Your task to perform on an android device: Clear the cart on target. Add "logitech g pro" to the cart on target, then select checkout. Image 0: 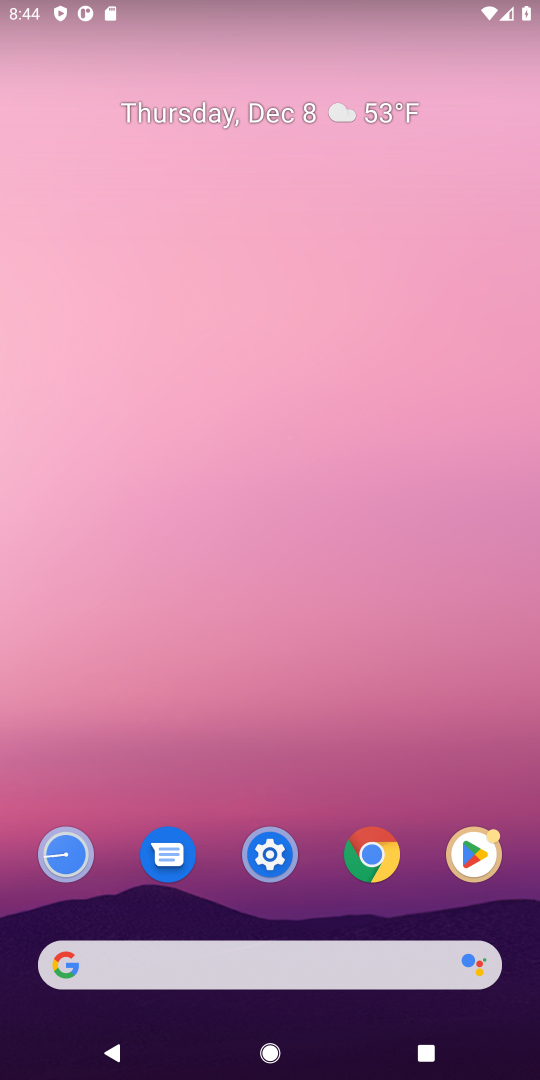
Step 0: press home button
Your task to perform on an android device: Clear the cart on target. Add "logitech g pro" to the cart on target, then select checkout. Image 1: 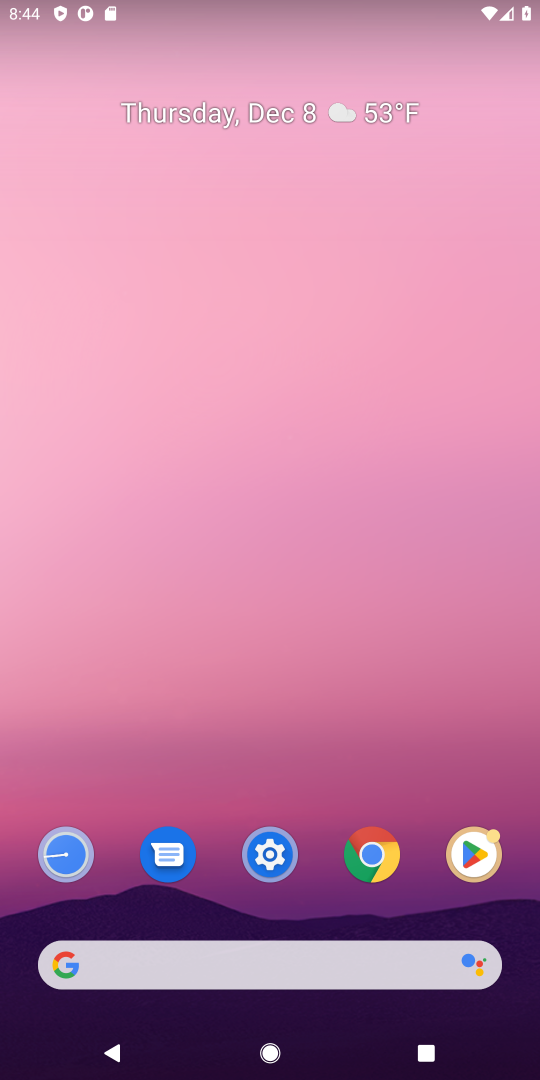
Step 1: click (89, 972)
Your task to perform on an android device: Clear the cart on target. Add "logitech g pro" to the cart on target, then select checkout. Image 2: 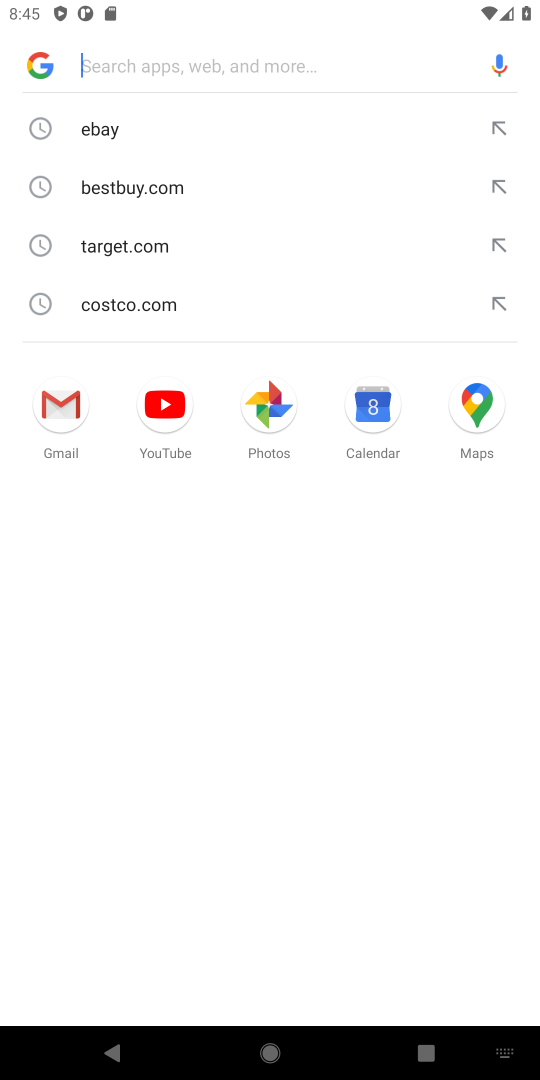
Step 2: type "target"
Your task to perform on an android device: Clear the cart on target. Add "logitech g pro" to the cart on target, then select checkout. Image 3: 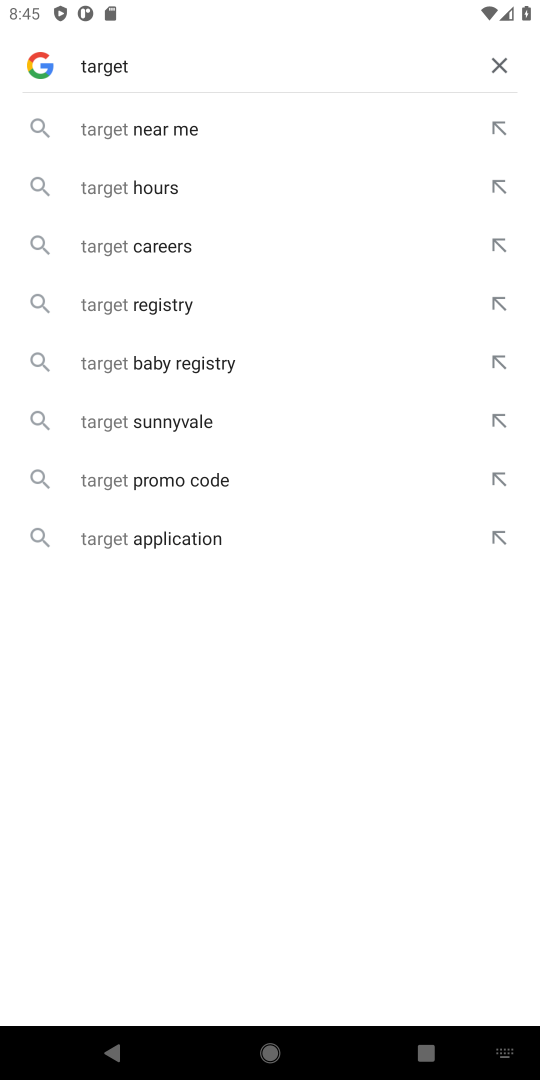
Step 3: press enter
Your task to perform on an android device: Clear the cart on target. Add "logitech g pro" to the cart on target, then select checkout. Image 4: 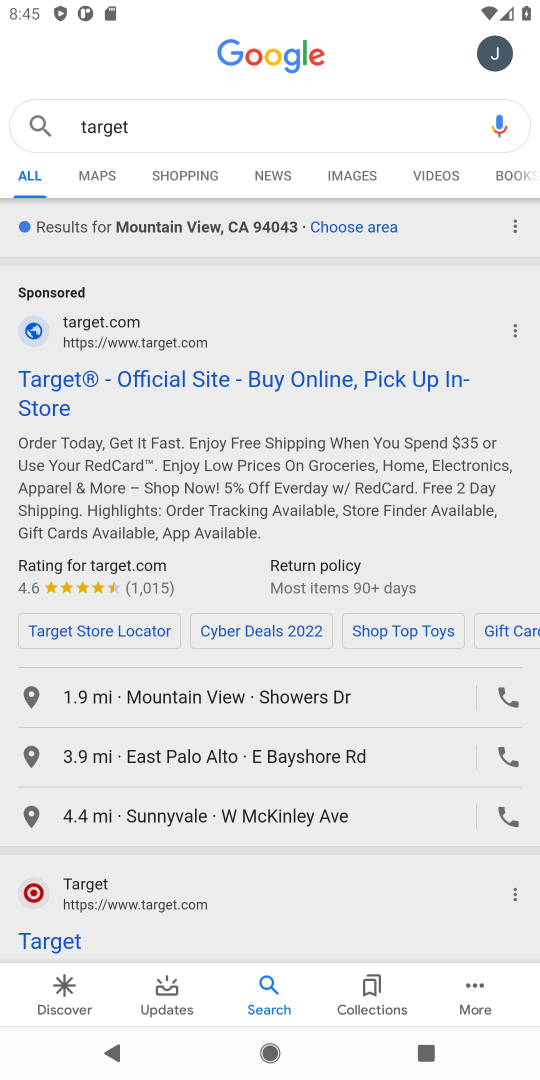
Step 4: click (163, 378)
Your task to perform on an android device: Clear the cart on target. Add "logitech g pro" to the cart on target, then select checkout. Image 5: 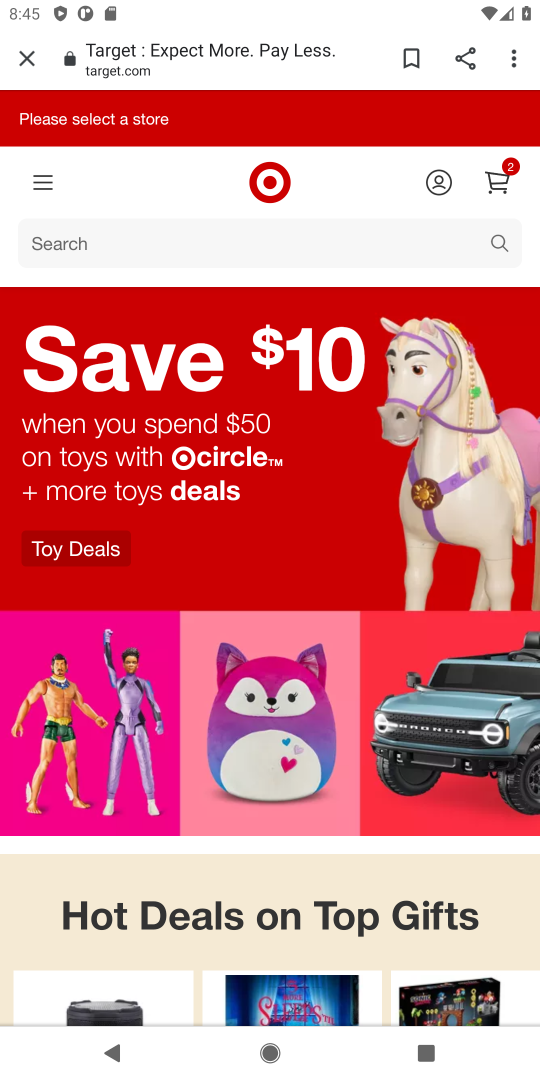
Step 5: click (497, 170)
Your task to perform on an android device: Clear the cart on target. Add "logitech g pro" to the cart on target, then select checkout. Image 6: 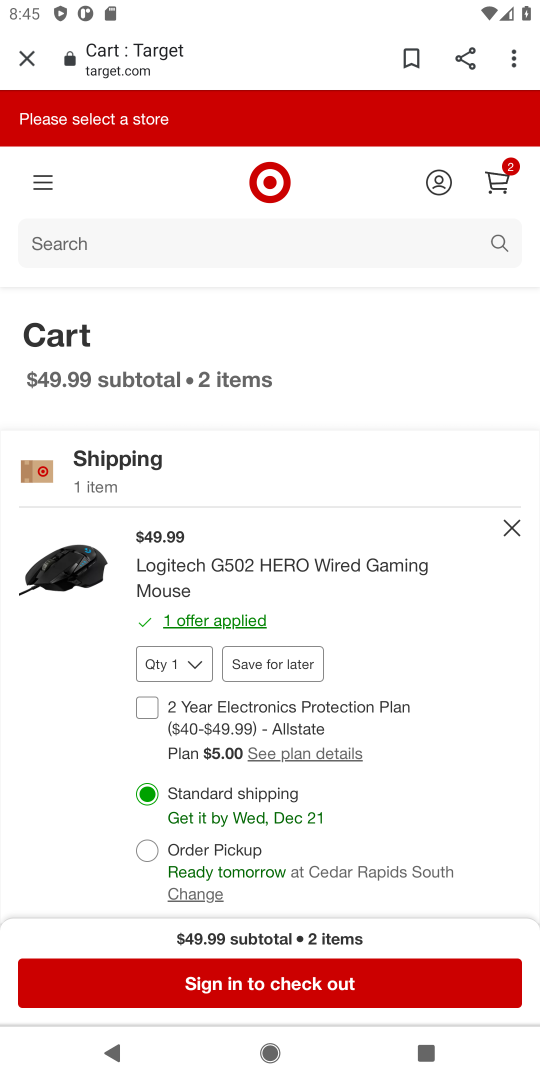
Step 6: click (506, 523)
Your task to perform on an android device: Clear the cart on target. Add "logitech g pro" to the cart on target, then select checkout. Image 7: 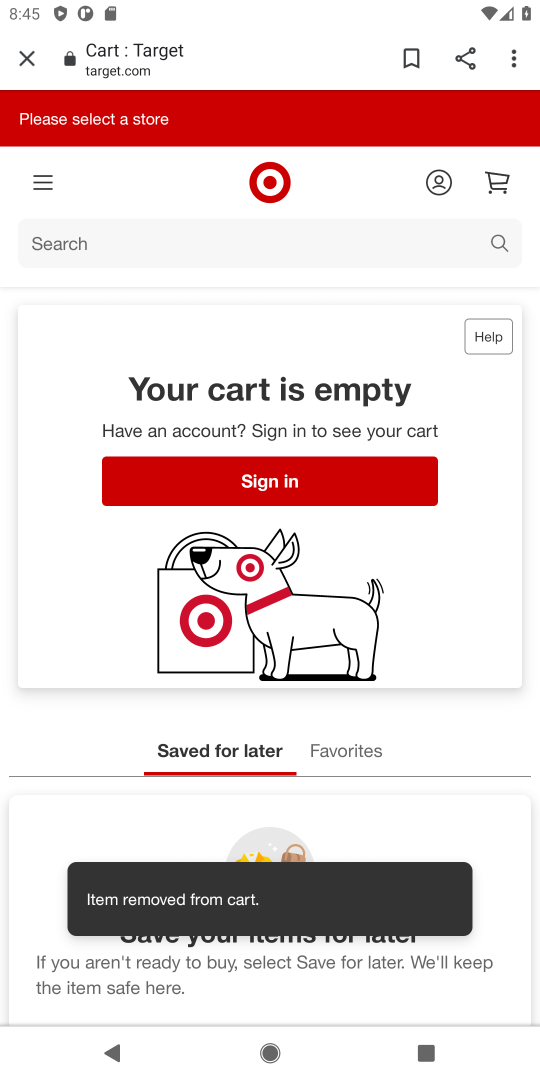
Step 7: click (100, 240)
Your task to perform on an android device: Clear the cart on target. Add "logitech g pro" to the cart on target, then select checkout. Image 8: 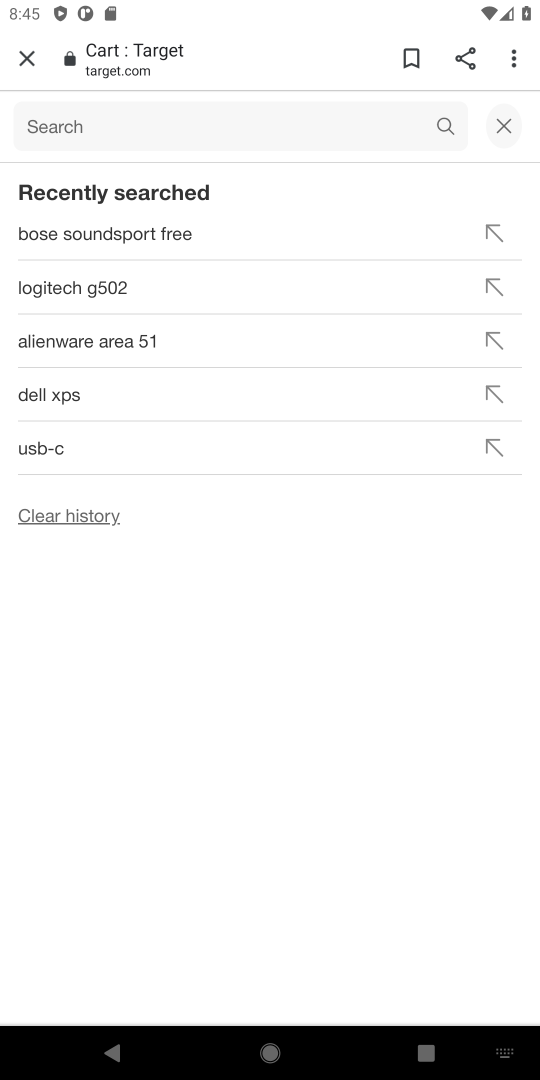
Step 8: type "logitech g pro"
Your task to perform on an android device: Clear the cart on target. Add "logitech g pro" to the cart on target, then select checkout. Image 9: 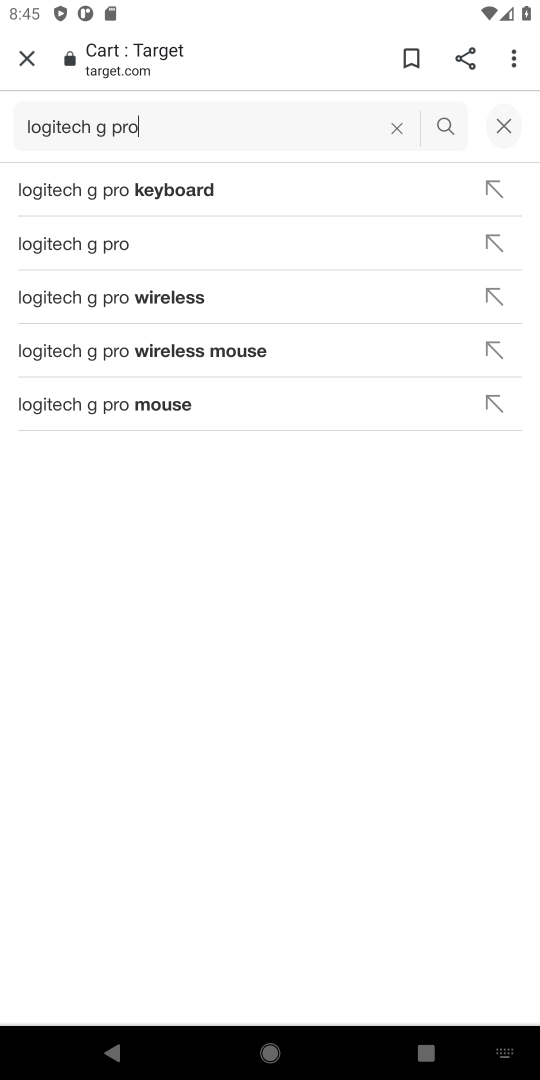
Step 9: press enter
Your task to perform on an android device: Clear the cart on target. Add "logitech g pro" to the cart on target, then select checkout. Image 10: 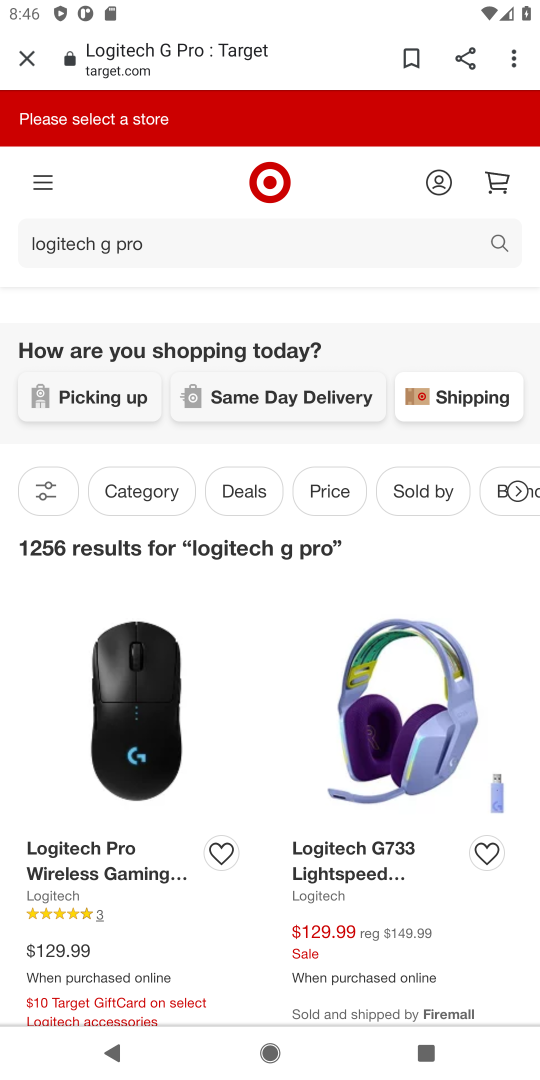
Step 10: drag from (166, 926) to (229, 490)
Your task to perform on an android device: Clear the cart on target. Add "logitech g pro" to the cart on target, then select checkout. Image 11: 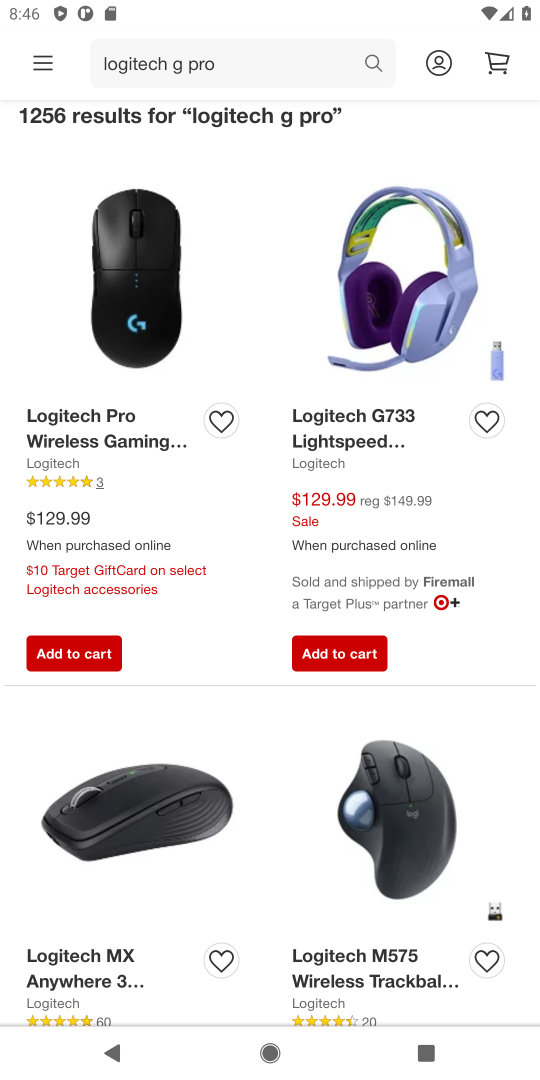
Step 11: click (50, 654)
Your task to perform on an android device: Clear the cart on target. Add "logitech g pro" to the cart on target, then select checkout. Image 12: 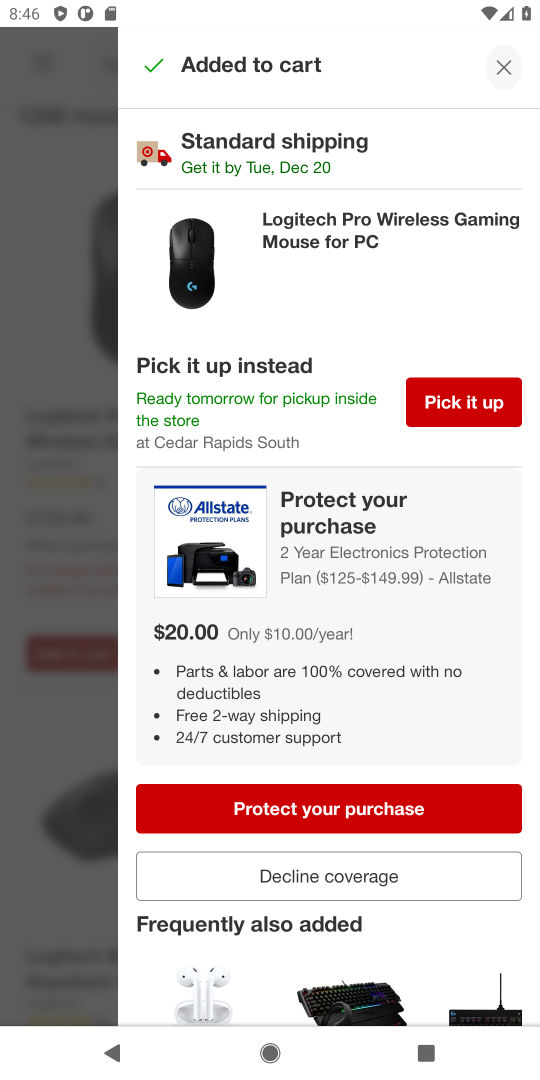
Step 12: click (331, 873)
Your task to perform on an android device: Clear the cart on target. Add "logitech g pro" to the cart on target, then select checkout. Image 13: 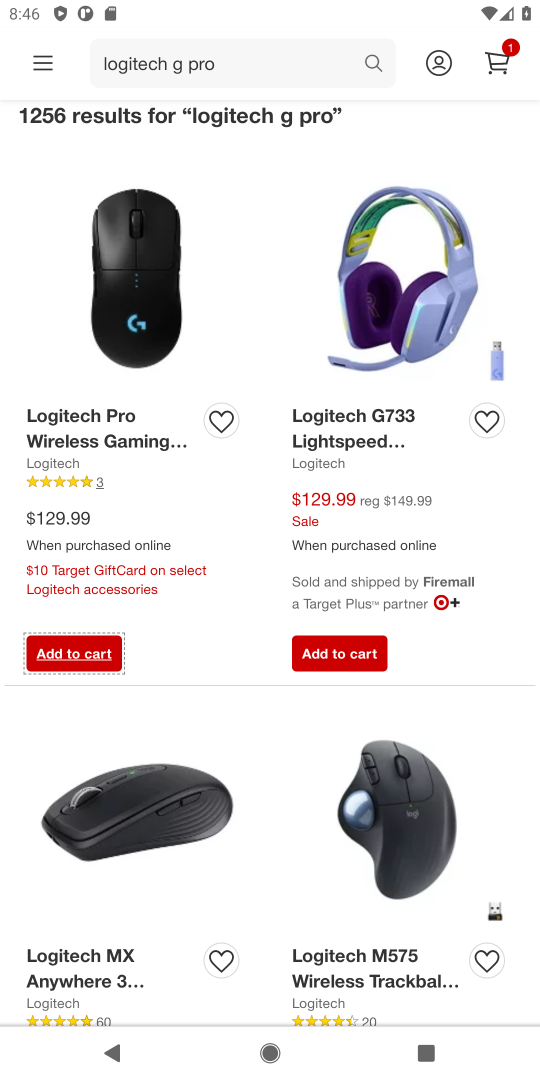
Step 13: click (493, 55)
Your task to perform on an android device: Clear the cart on target. Add "logitech g pro" to the cart on target, then select checkout. Image 14: 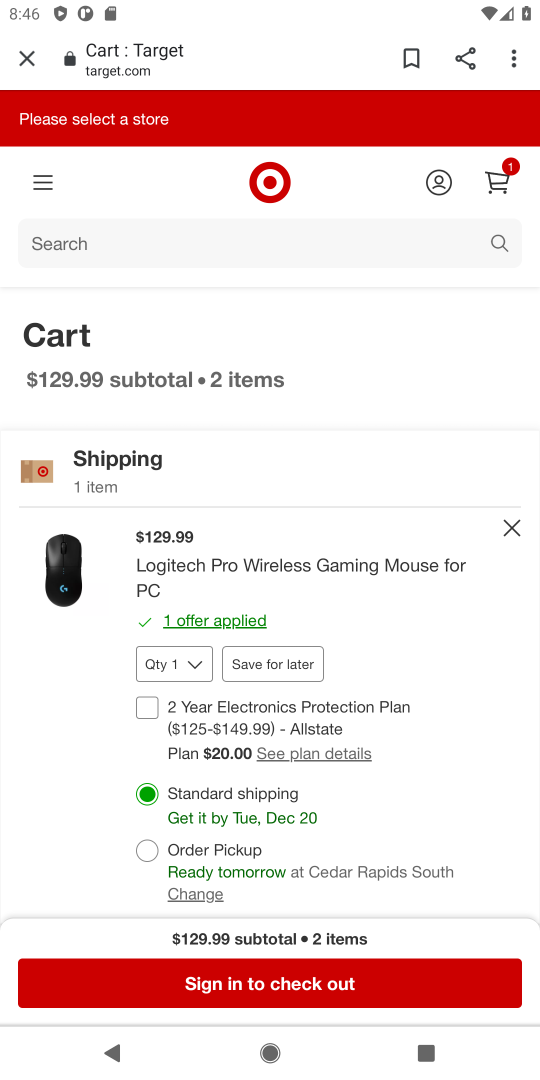
Step 14: click (305, 988)
Your task to perform on an android device: Clear the cart on target. Add "logitech g pro" to the cart on target, then select checkout. Image 15: 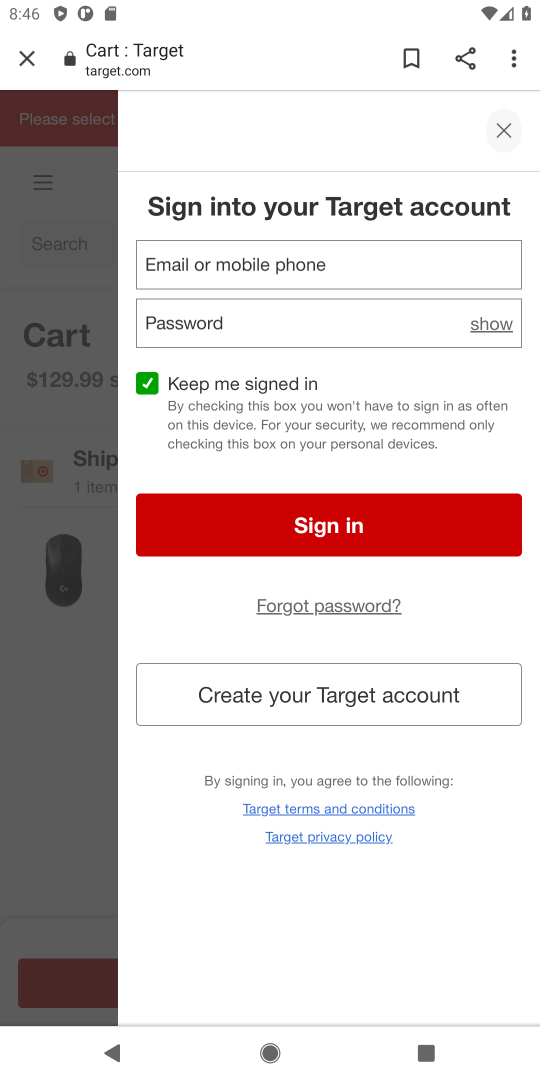
Step 15: task complete